Your task to perform on an android device: Empty the shopping cart on amazon. Search for "dell alienware" on amazon, select the first entry, add it to the cart, then select checkout. Image 0: 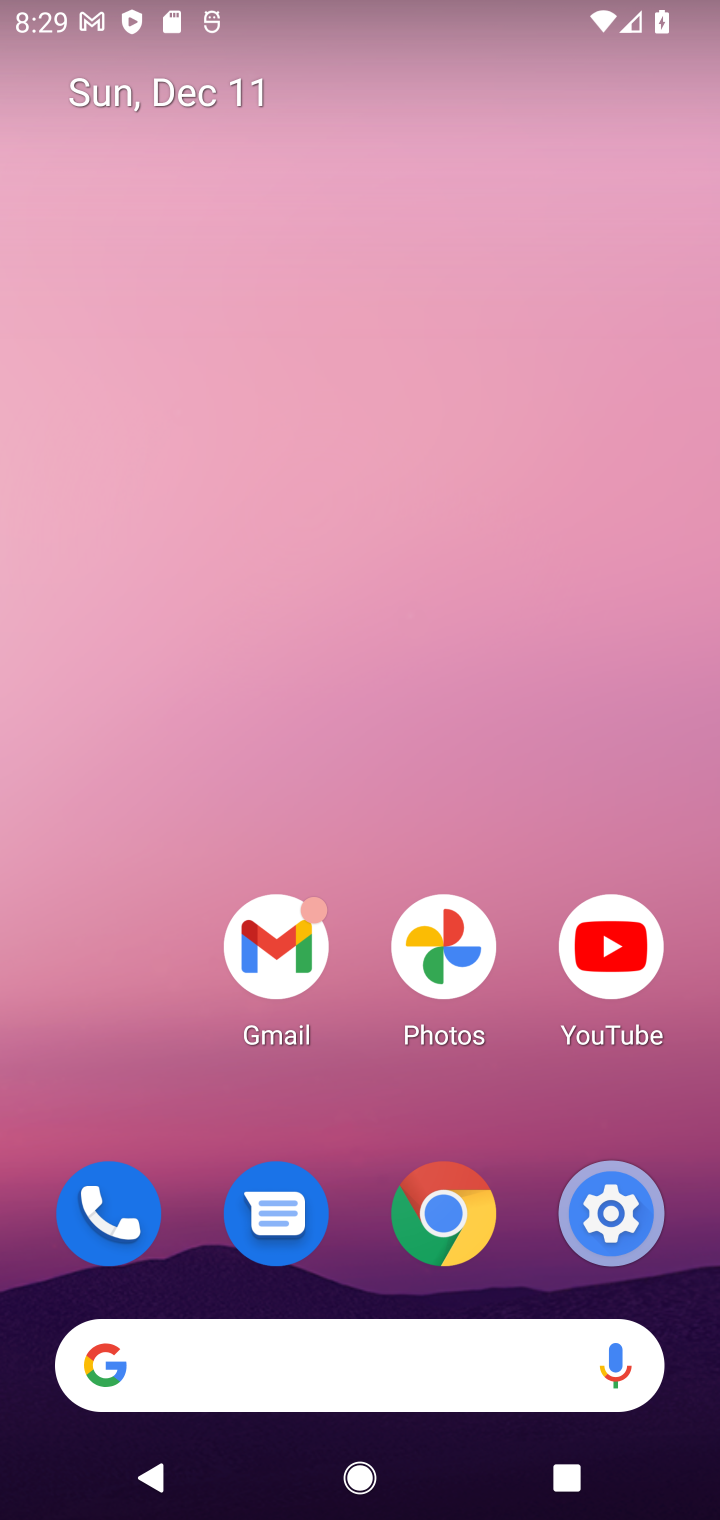
Step 0: click (279, 1398)
Your task to perform on an android device: Empty the shopping cart on amazon. Search for "dell alienware" on amazon, select the first entry, add it to the cart, then select checkout. Image 1: 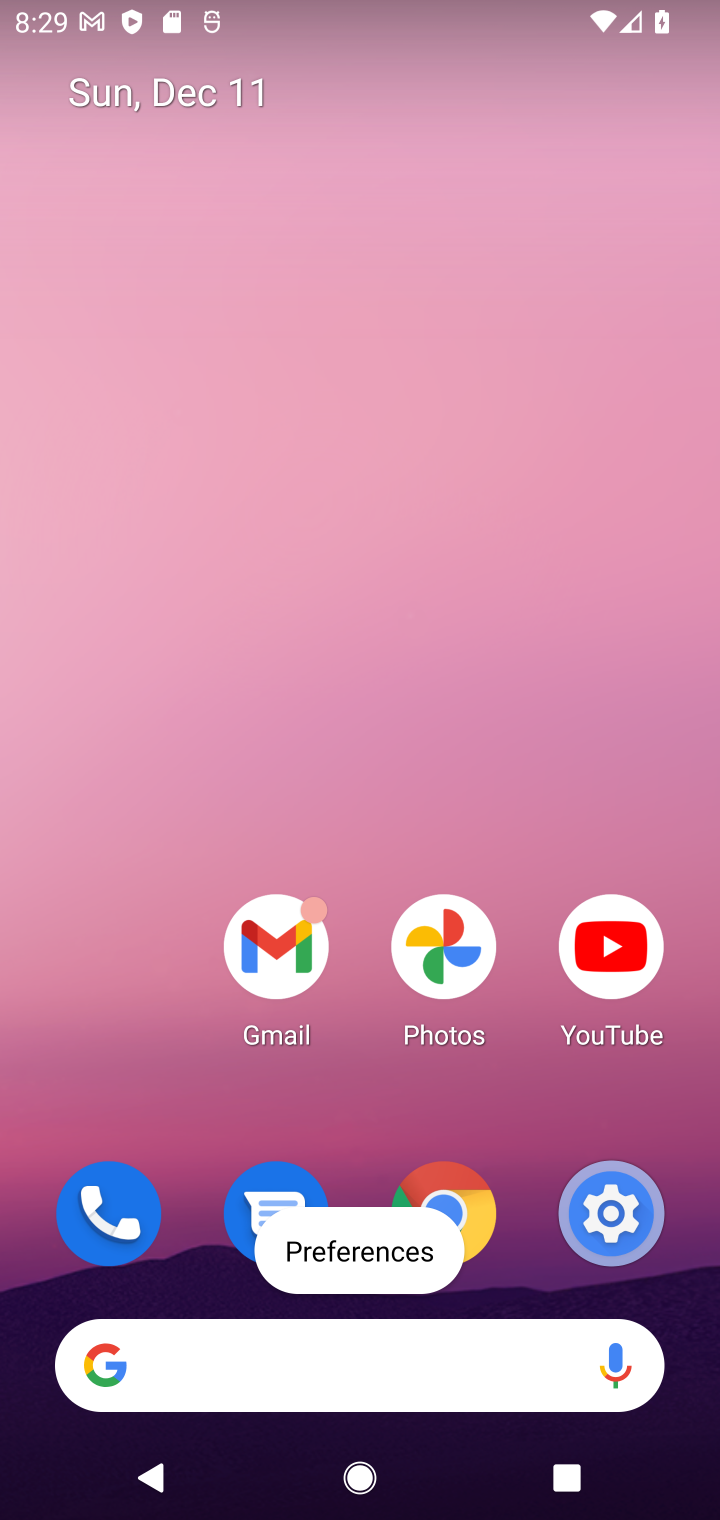
Step 1: click (381, 1346)
Your task to perform on an android device: Empty the shopping cart on amazon. Search for "dell alienware" on amazon, select the first entry, add it to the cart, then select checkout. Image 2: 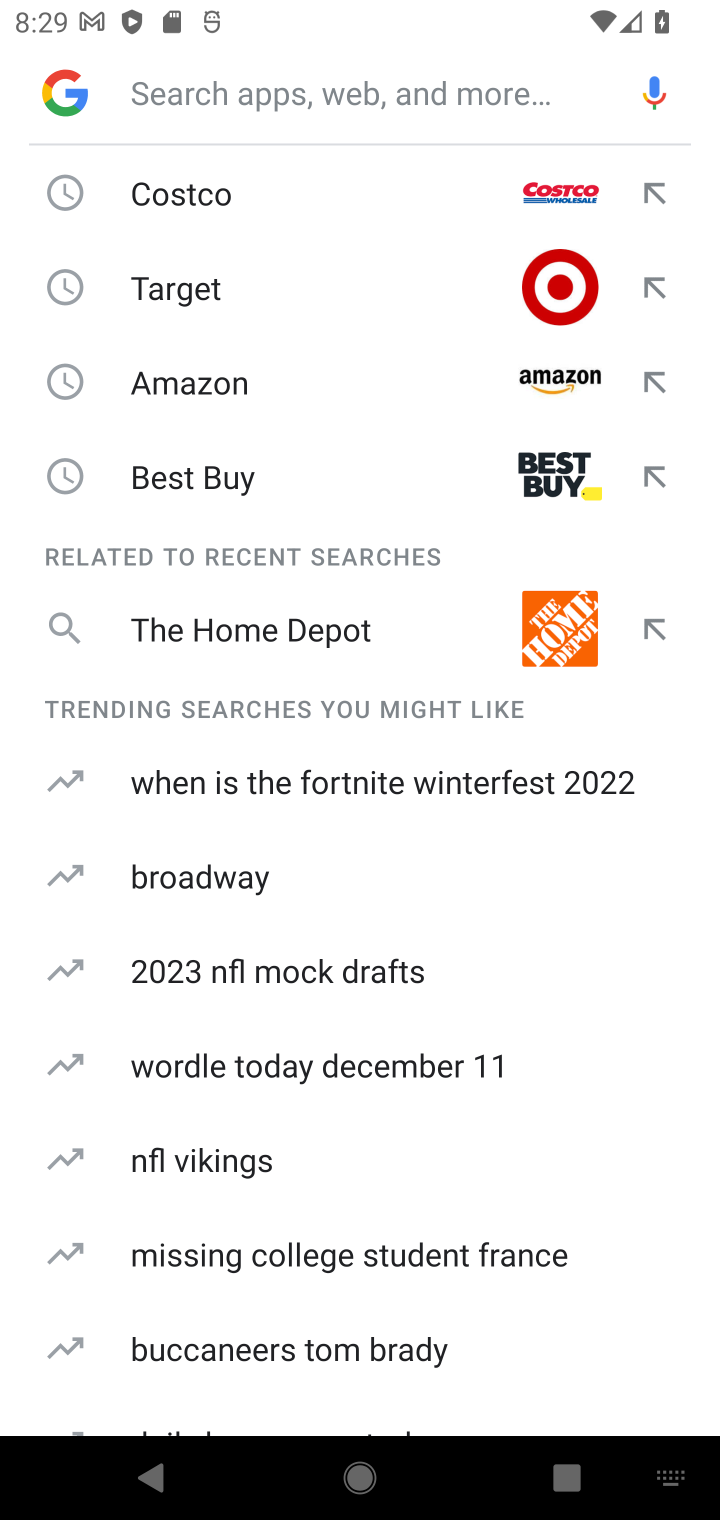
Step 2: click (162, 374)
Your task to perform on an android device: Empty the shopping cart on amazon. Search for "dell alienware" on amazon, select the first entry, add it to the cart, then select checkout. Image 3: 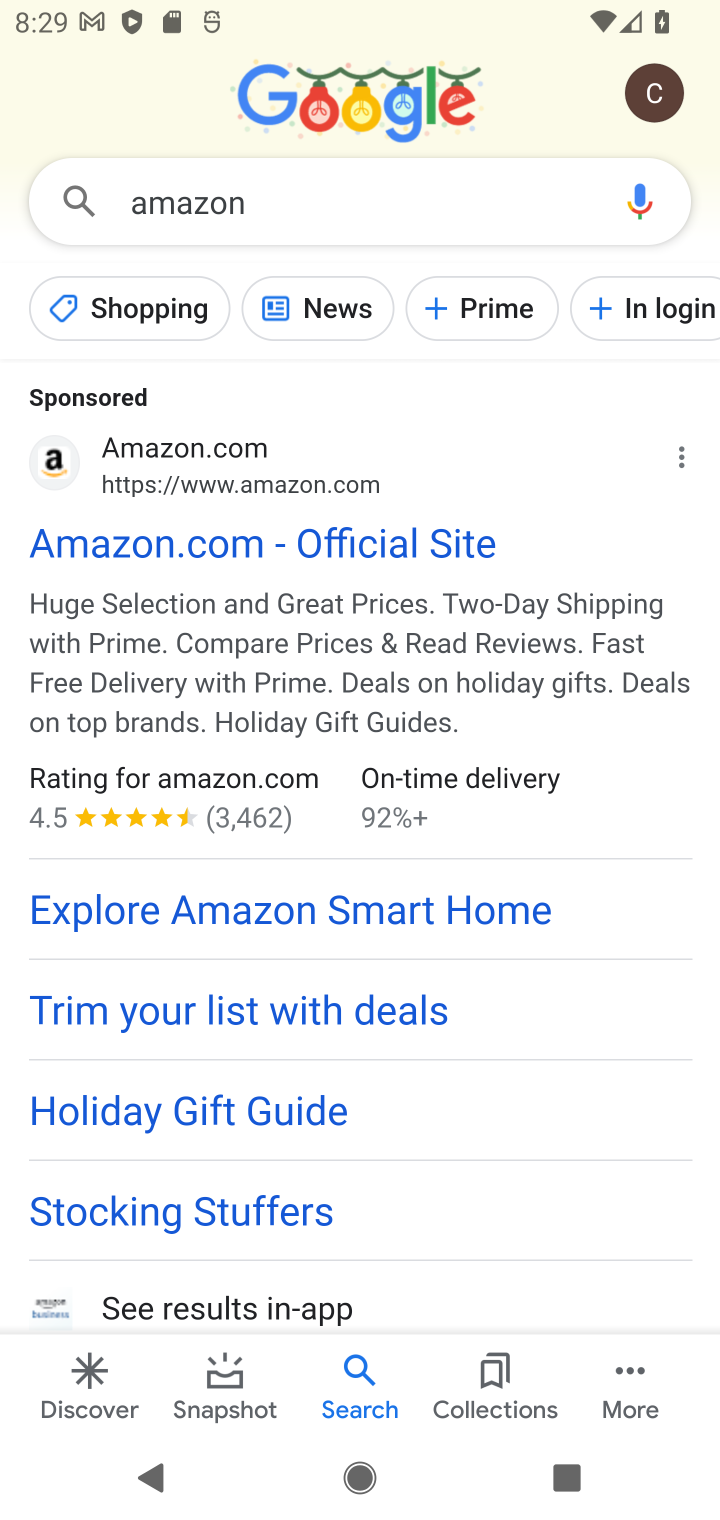
Step 3: click (235, 510)
Your task to perform on an android device: Empty the shopping cart on amazon. Search for "dell alienware" on amazon, select the first entry, add it to the cart, then select checkout. Image 4: 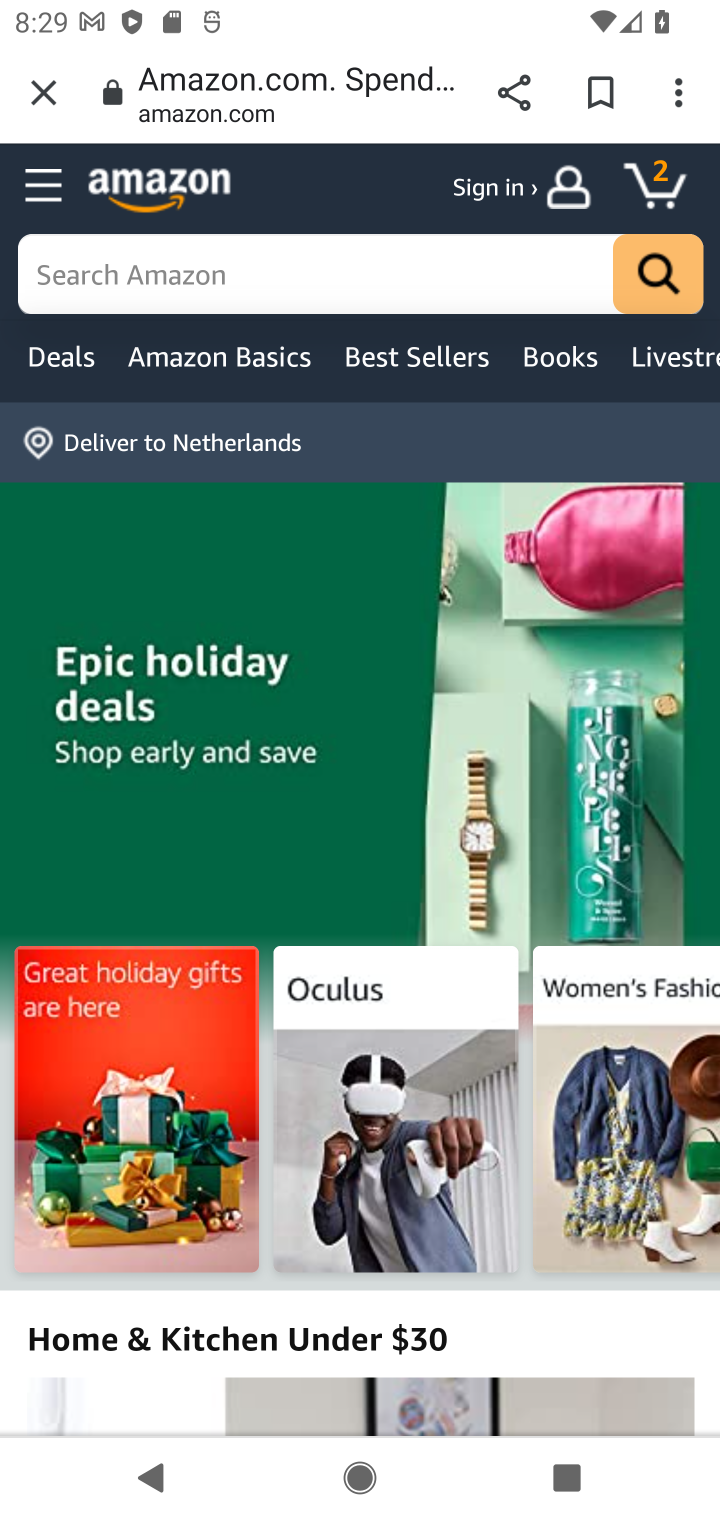
Step 4: click (184, 262)
Your task to perform on an android device: Empty the shopping cart on amazon. Search for "dell alienware" on amazon, select the first entry, add it to the cart, then select checkout. Image 5: 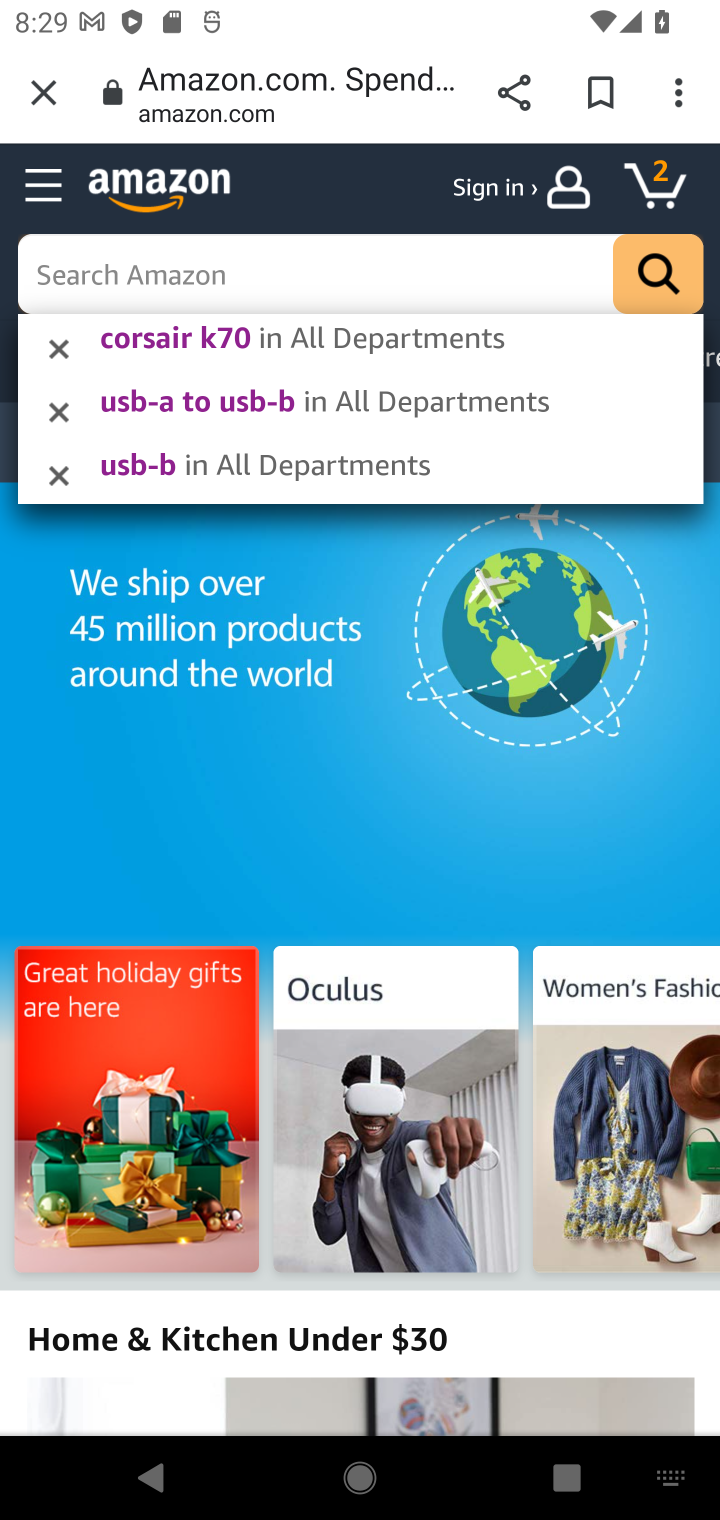
Step 5: type "dell alienware"
Your task to perform on an android device: Empty the shopping cart on amazon. Search for "dell alienware" on amazon, select the first entry, add it to the cart, then select checkout. Image 6: 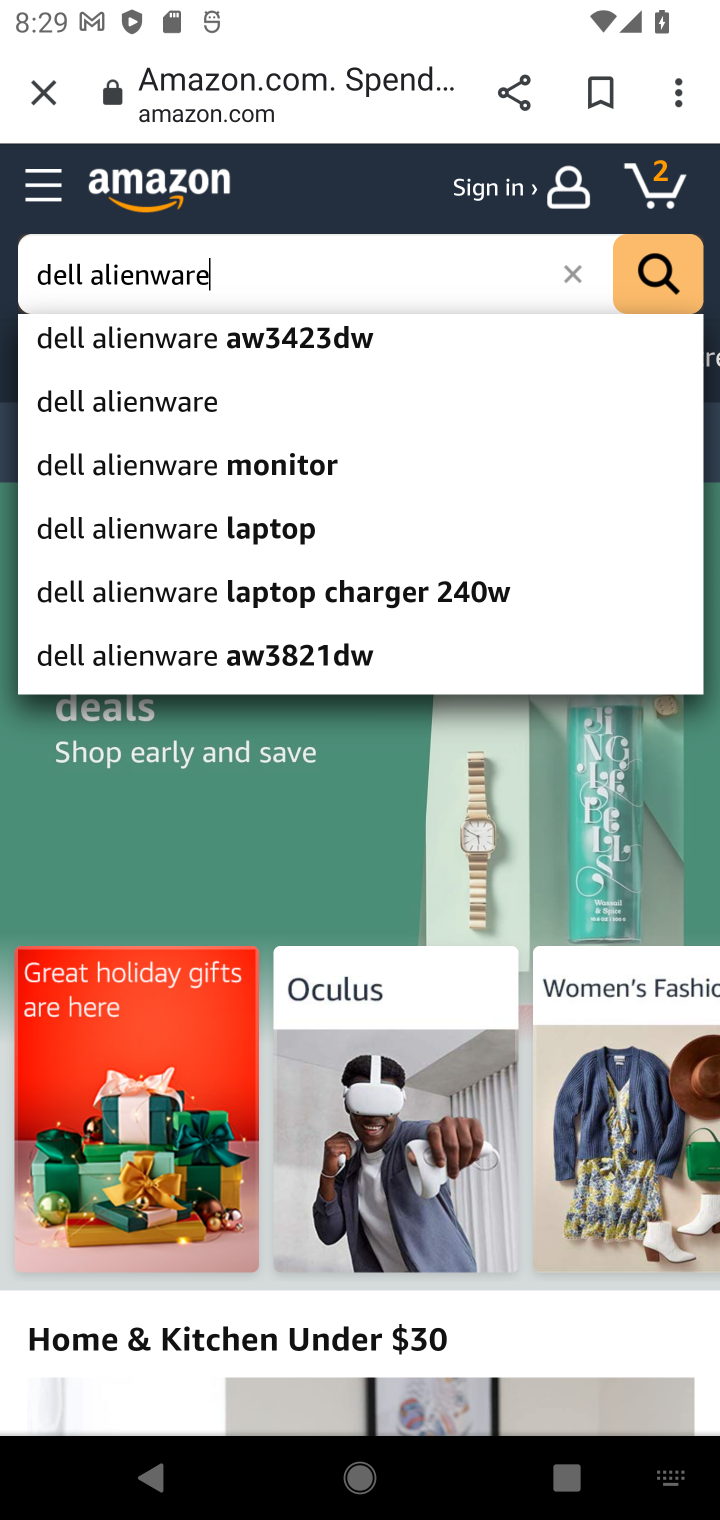
Step 6: click (156, 412)
Your task to perform on an android device: Empty the shopping cart on amazon. Search for "dell alienware" on amazon, select the first entry, add it to the cart, then select checkout. Image 7: 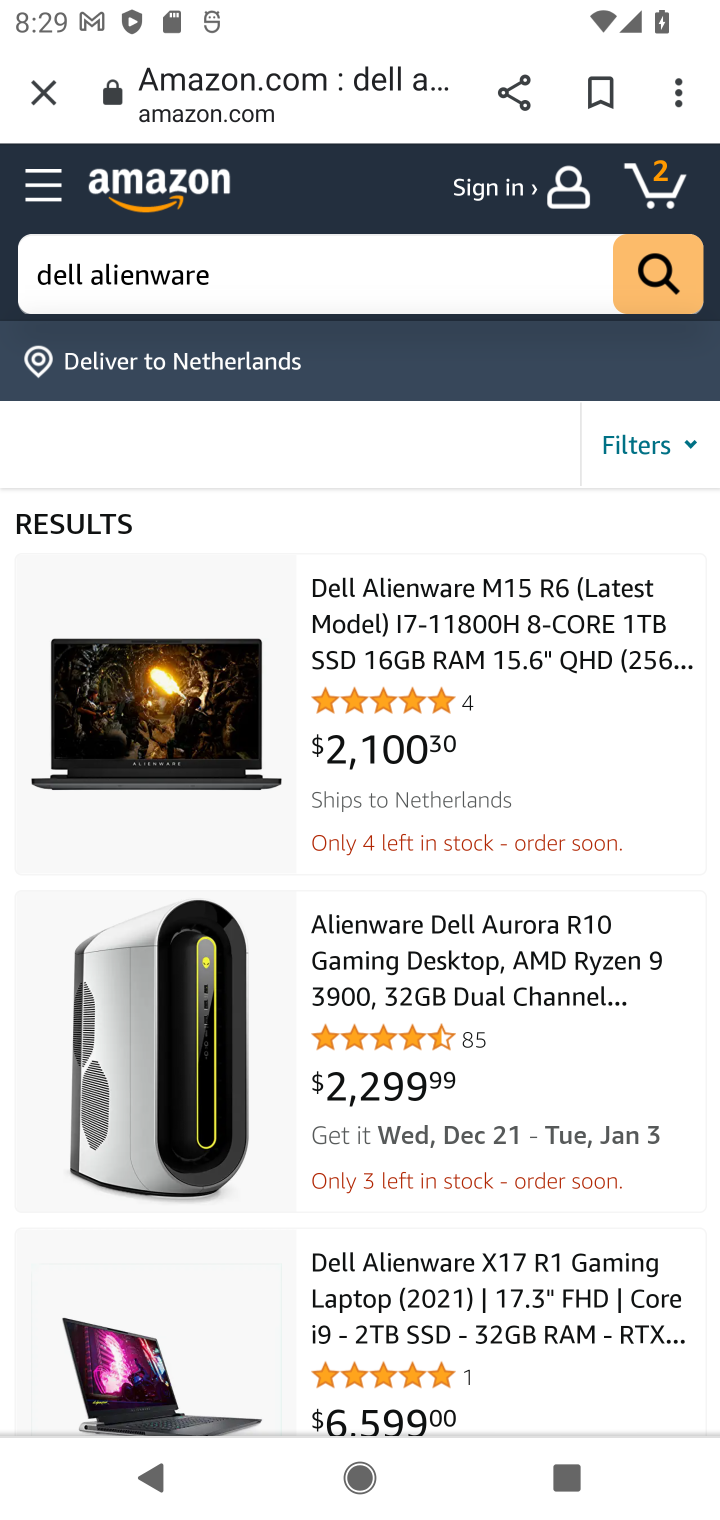
Step 7: click (393, 624)
Your task to perform on an android device: Empty the shopping cart on amazon. Search for "dell alienware" on amazon, select the first entry, add it to the cart, then select checkout. Image 8: 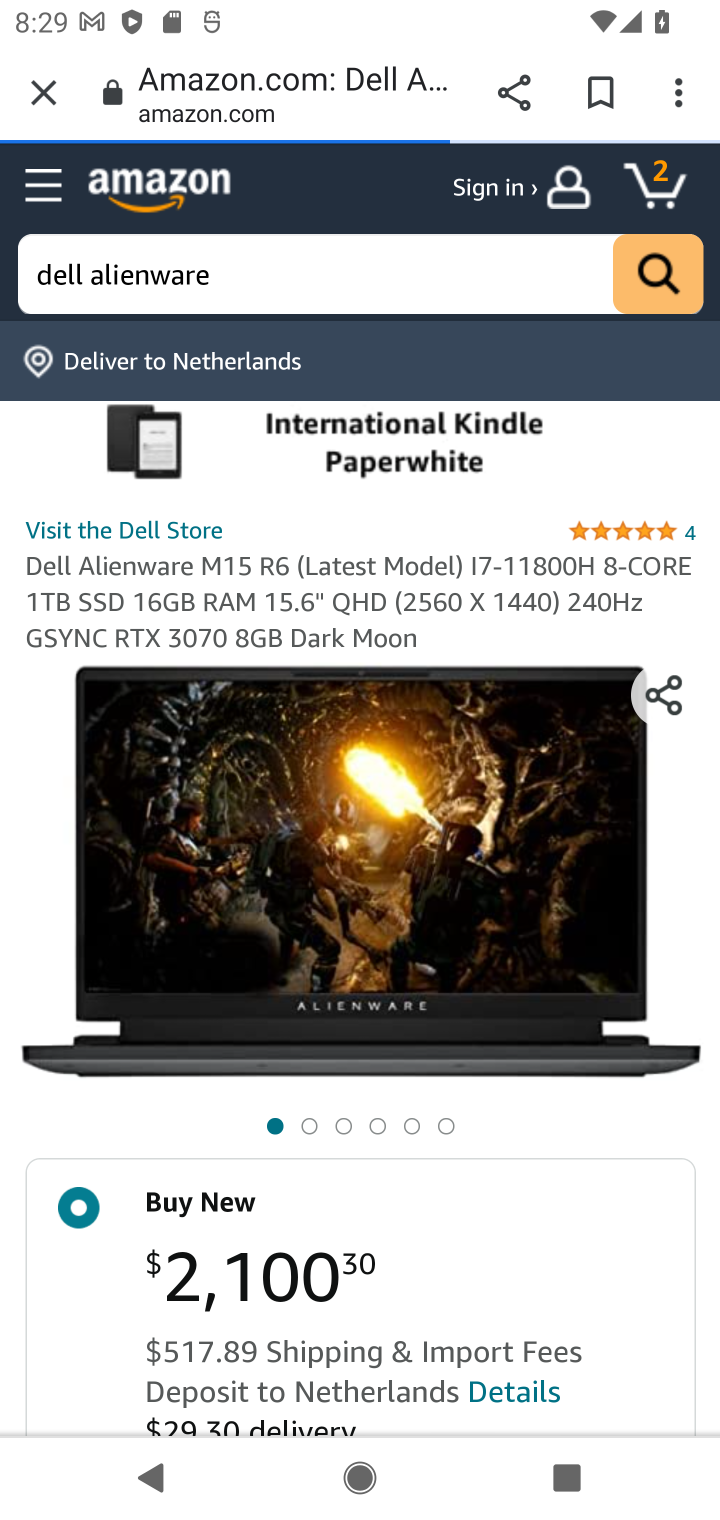
Step 8: drag from (560, 1209) to (426, 463)
Your task to perform on an android device: Empty the shopping cart on amazon. Search for "dell alienware" on amazon, select the first entry, add it to the cart, then select checkout. Image 9: 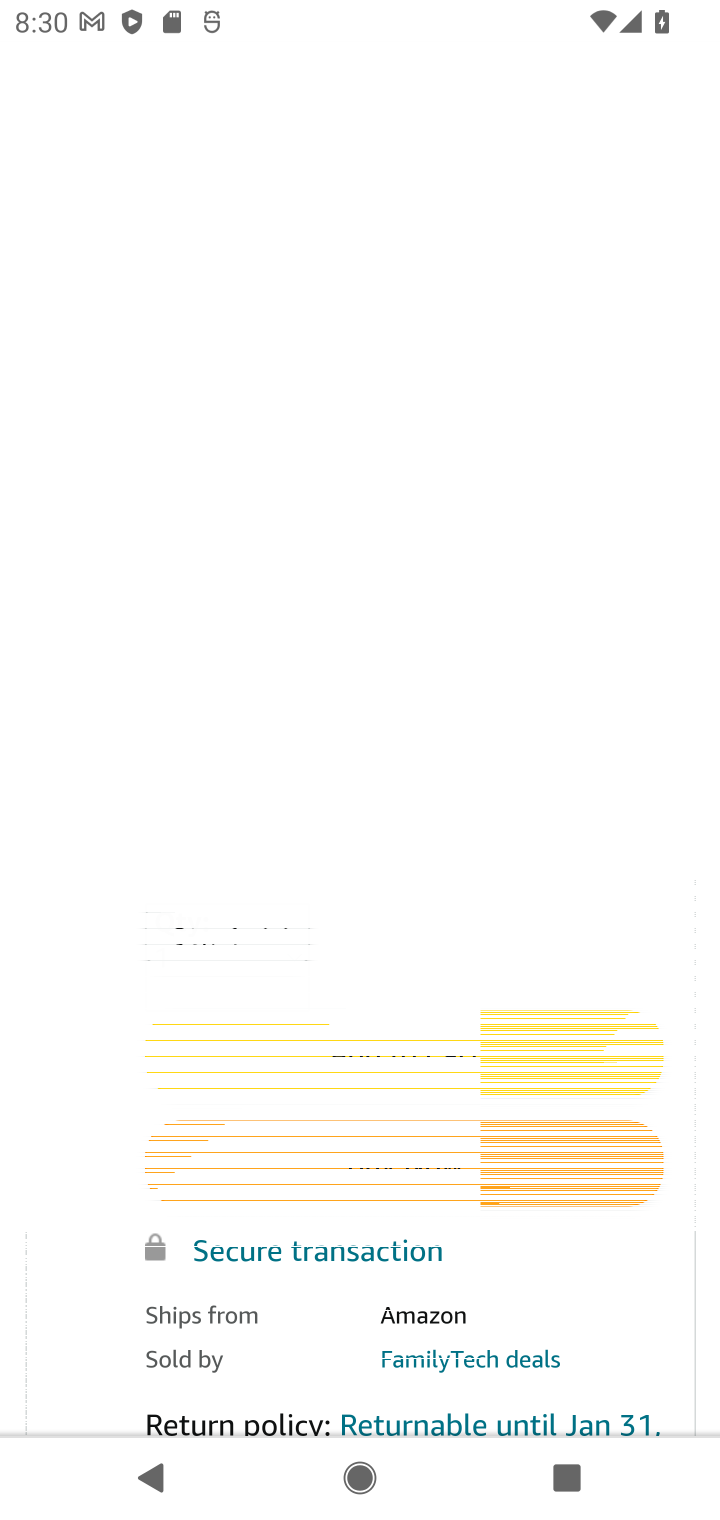
Step 9: click (505, 1071)
Your task to perform on an android device: Empty the shopping cart on amazon. Search for "dell alienware" on amazon, select the first entry, add it to the cart, then select checkout. Image 10: 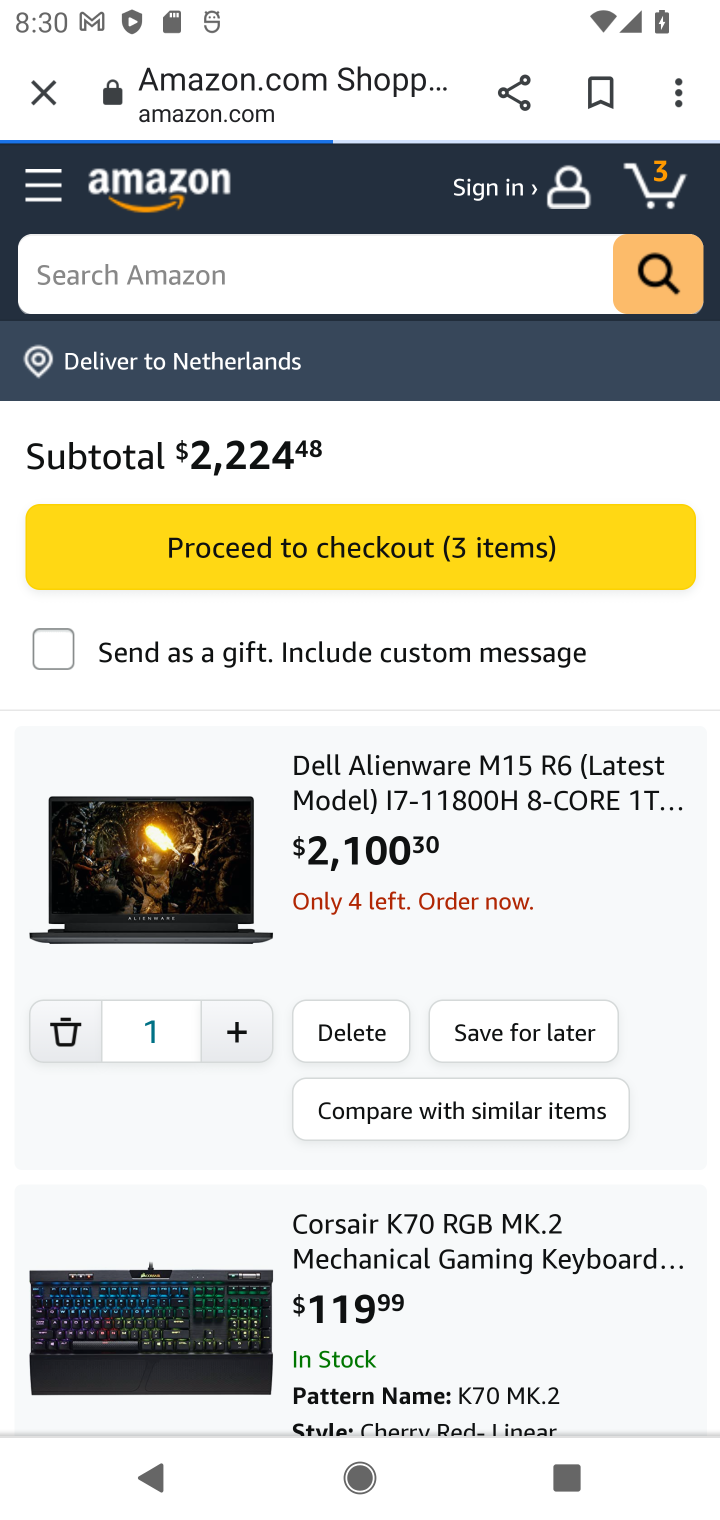
Step 10: task complete